Your task to perform on an android device: toggle sleep mode Image 0: 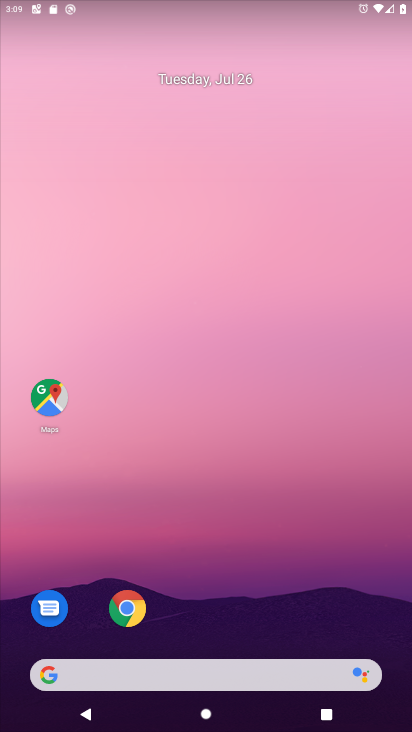
Step 0: drag from (238, 619) to (239, 206)
Your task to perform on an android device: toggle sleep mode Image 1: 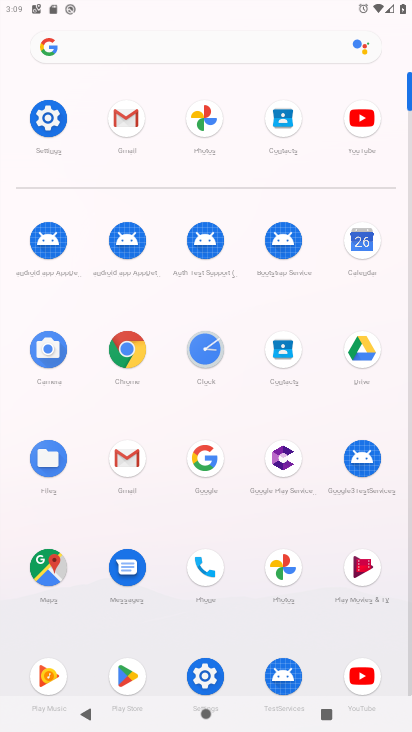
Step 1: click (42, 114)
Your task to perform on an android device: toggle sleep mode Image 2: 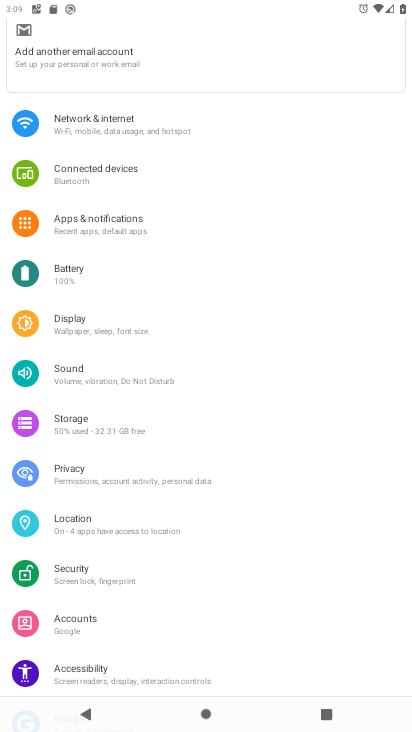
Step 2: click (137, 335)
Your task to perform on an android device: toggle sleep mode Image 3: 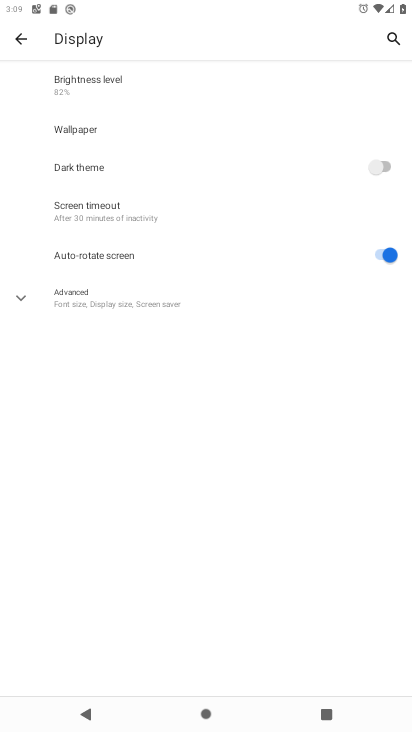
Step 3: click (164, 303)
Your task to perform on an android device: toggle sleep mode Image 4: 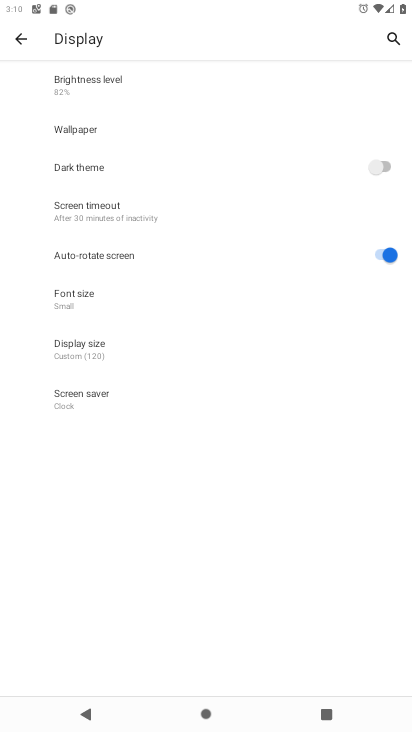
Step 4: task complete